Your task to perform on an android device: refresh tabs in the chrome app Image 0: 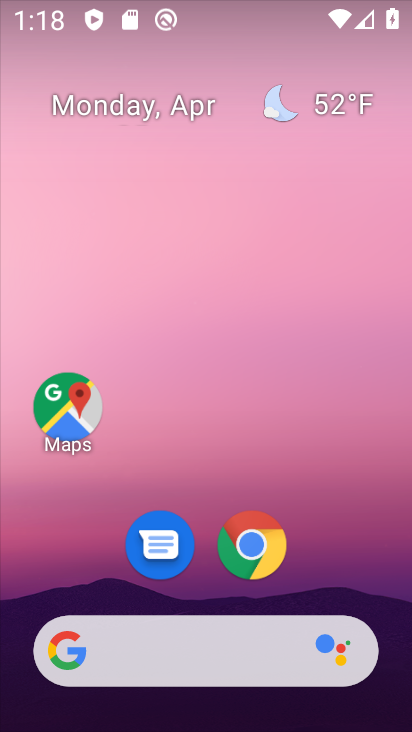
Step 0: click (248, 547)
Your task to perform on an android device: refresh tabs in the chrome app Image 1: 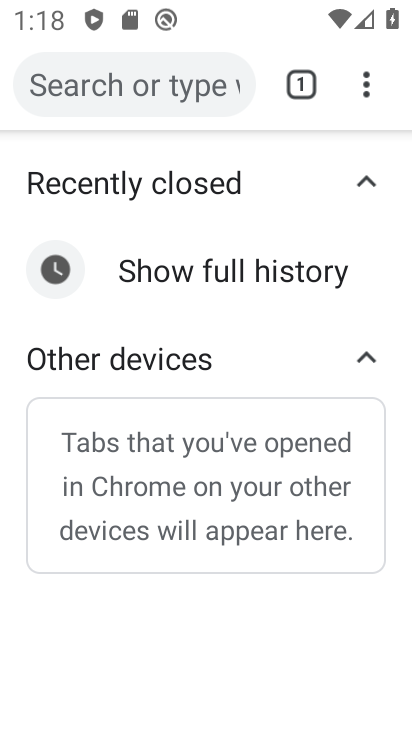
Step 1: click (364, 93)
Your task to perform on an android device: refresh tabs in the chrome app Image 2: 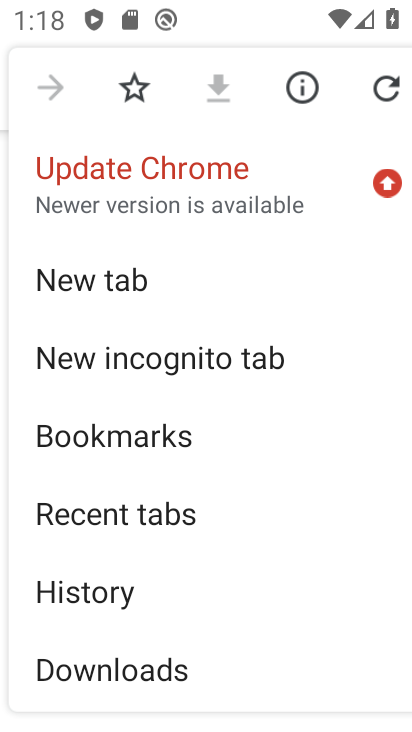
Step 2: click (382, 81)
Your task to perform on an android device: refresh tabs in the chrome app Image 3: 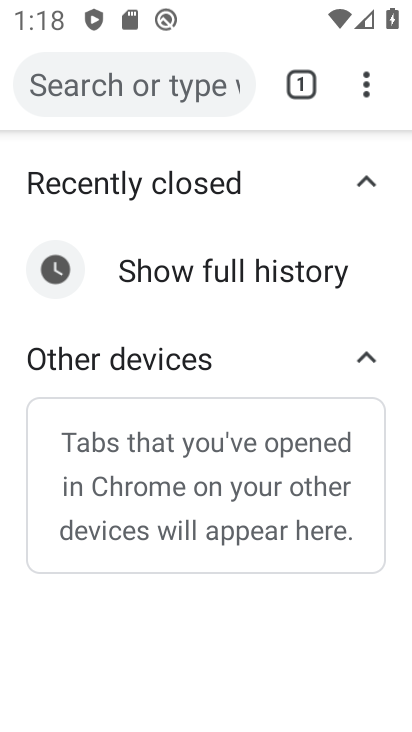
Step 3: task complete